Your task to perform on an android device: Clear the shopping cart on target. Search for razer nari on target, select the first entry, and add it to the cart. Image 0: 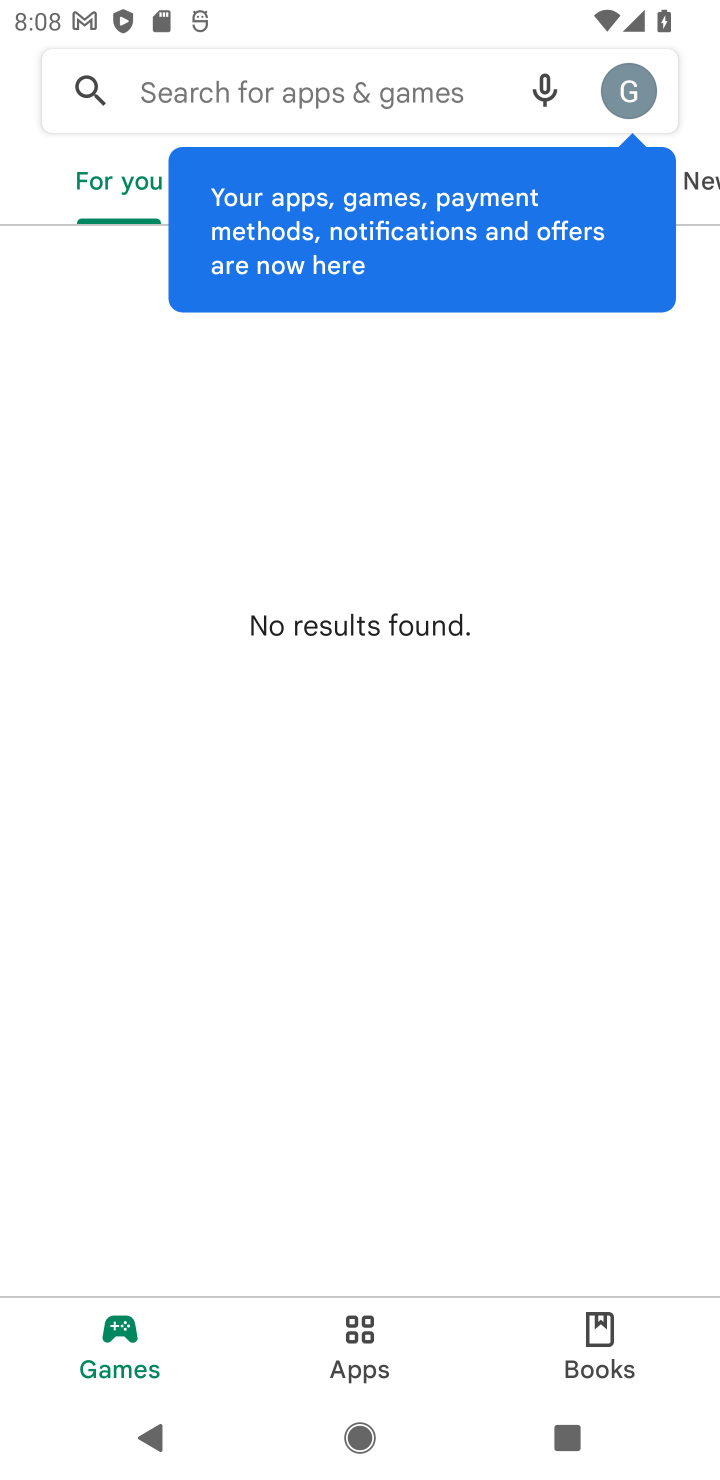
Step 0: press home button
Your task to perform on an android device: Clear the shopping cart on target. Search for razer nari on target, select the first entry, and add it to the cart. Image 1: 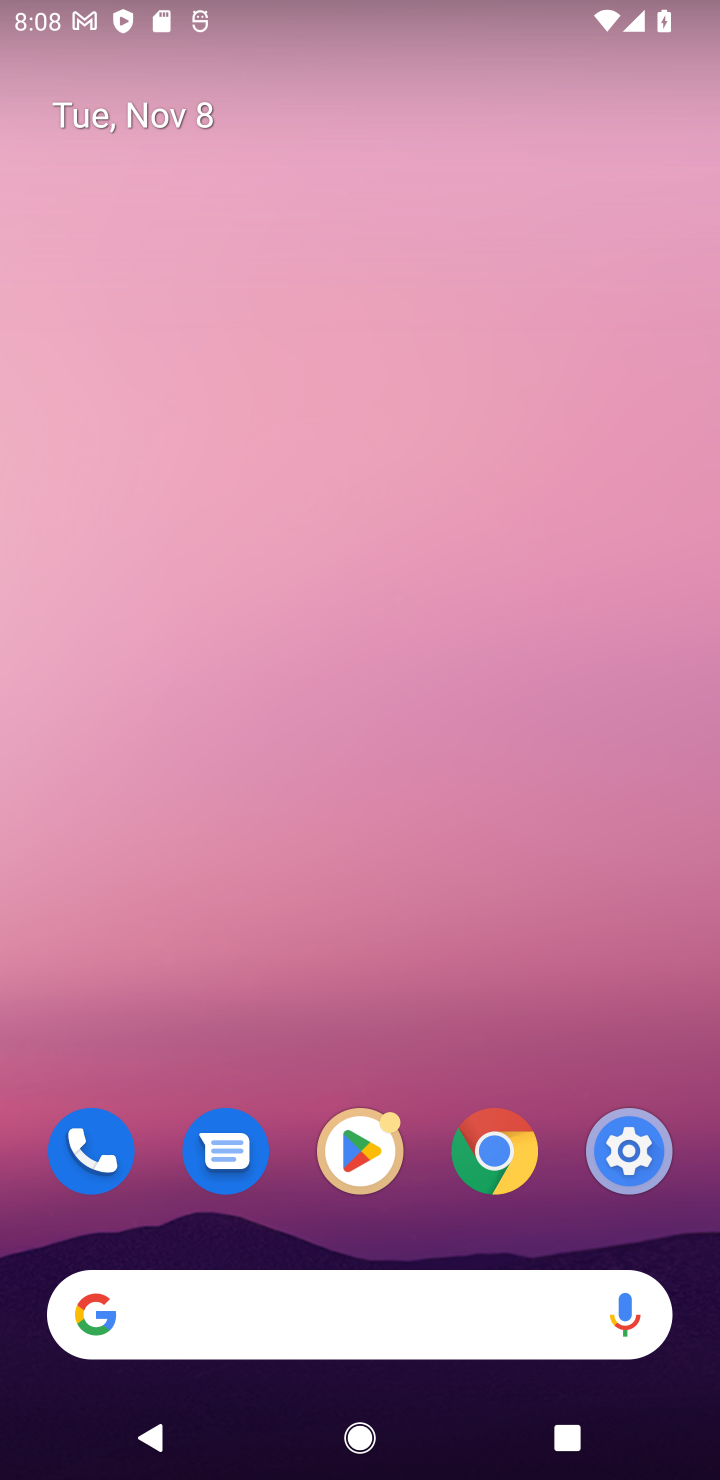
Step 1: click (373, 1304)
Your task to perform on an android device: Clear the shopping cart on target. Search for razer nari on target, select the first entry, and add it to the cart. Image 2: 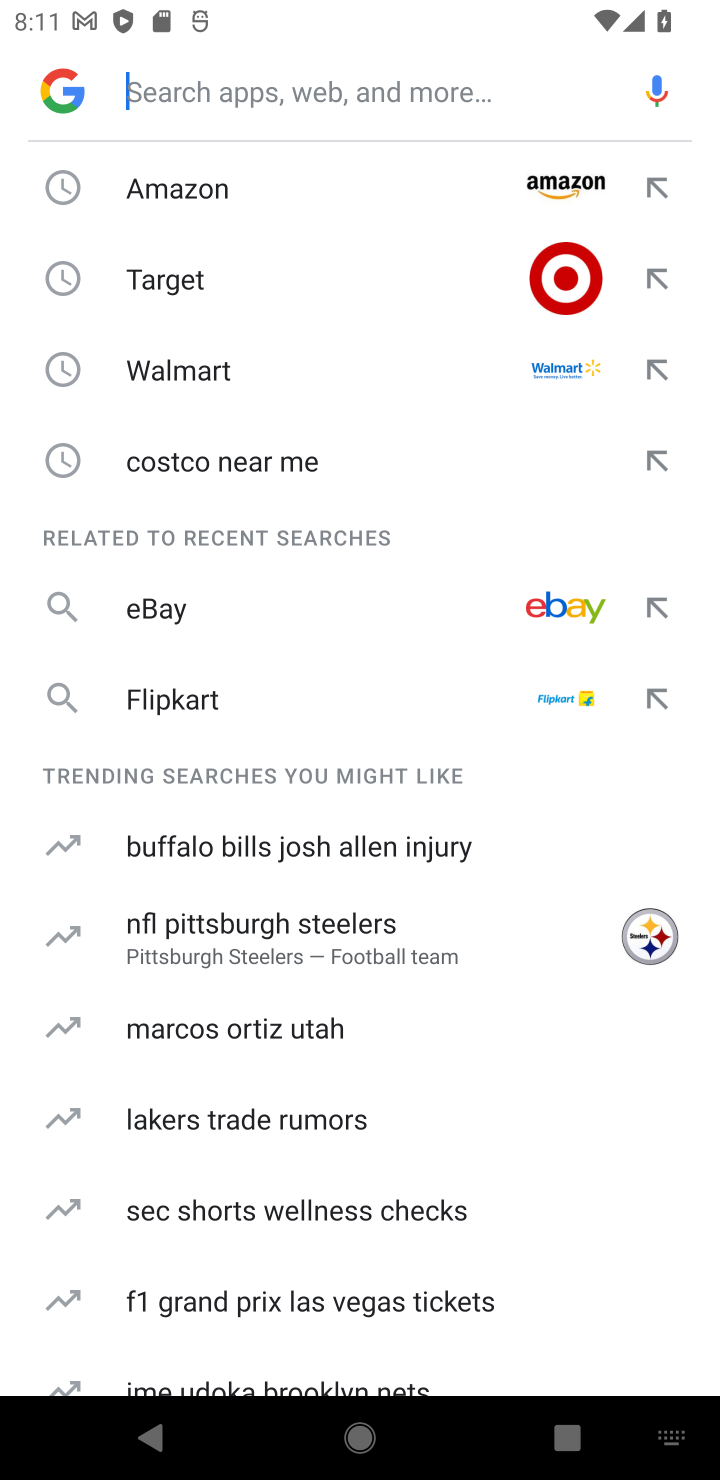
Step 2: click (293, 225)
Your task to perform on an android device: Clear the shopping cart on target. Search for razer nari on target, select the first entry, and add it to the cart. Image 3: 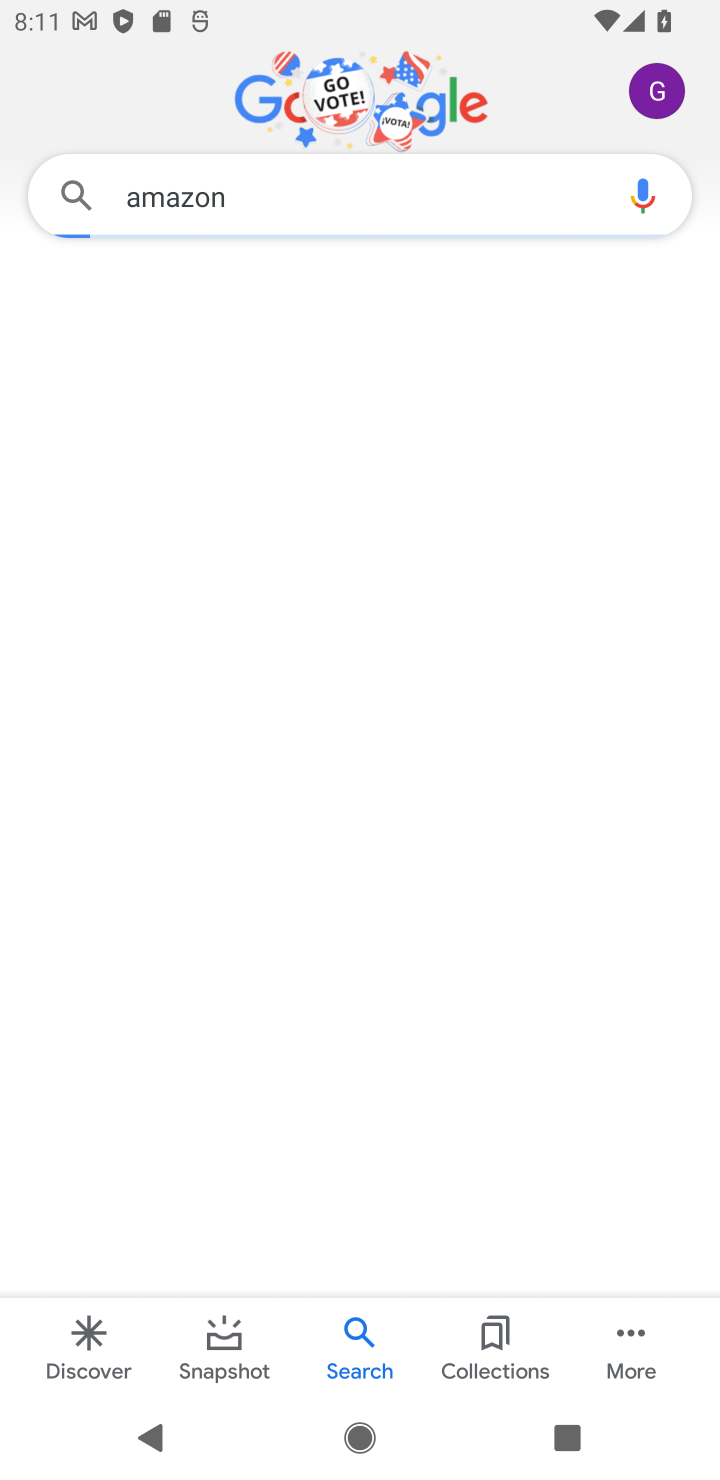
Step 3: task complete